Your task to perform on an android device: turn off translation in the chrome app Image 0: 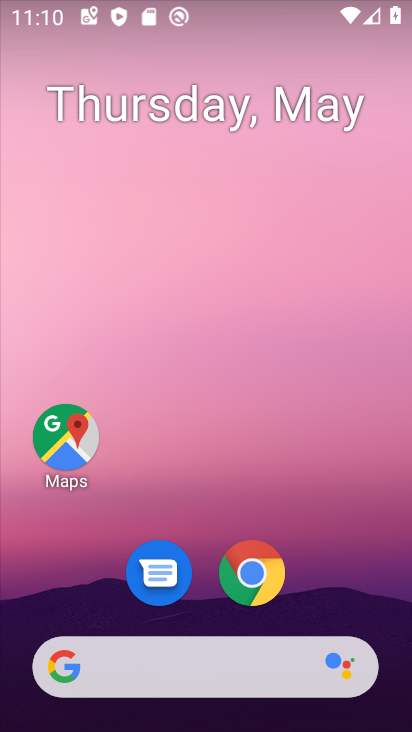
Step 0: click (261, 568)
Your task to perform on an android device: turn off translation in the chrome app Image 1: 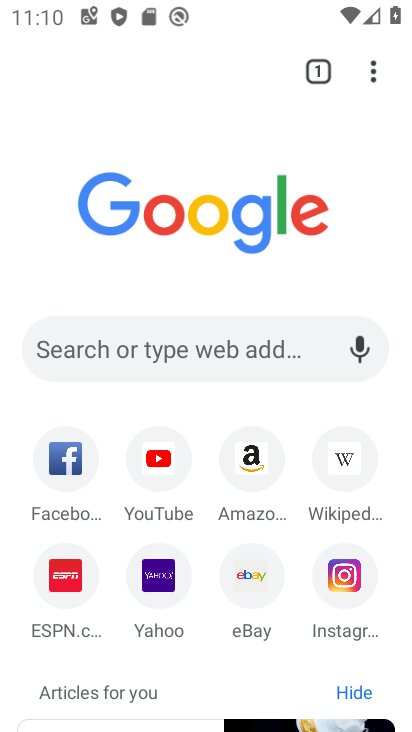
Step 1: click (380, 78)
Your task to perform on an android device: turn off translation in the chrome app Image 2: 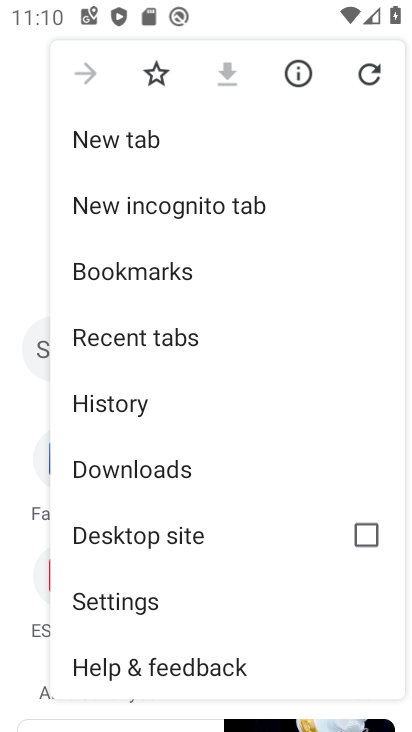
Step 2: click (219, 597)
Your task to perform on an android device: turn off translation in the chrome app Image 3: 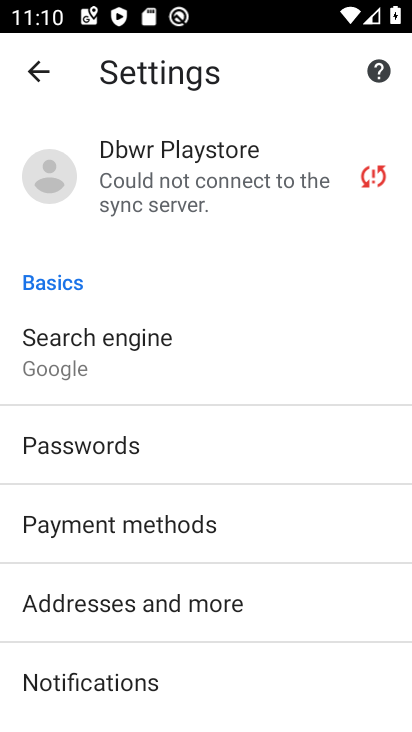
Step 3: drag from (256, 610) to (202, 359)
Your task to perform on an android device: turn off translation in the chrome app Image 4: 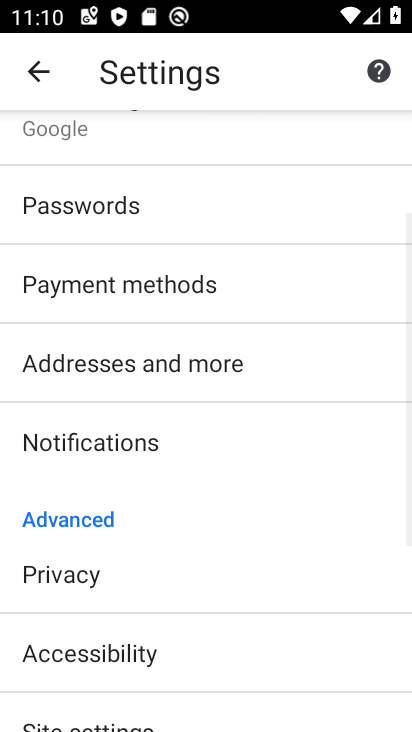
Step 4: drag from (236, 538) to (154, 307)
Your task to perform on an android device: turn off translation in the chrome app Image 5: 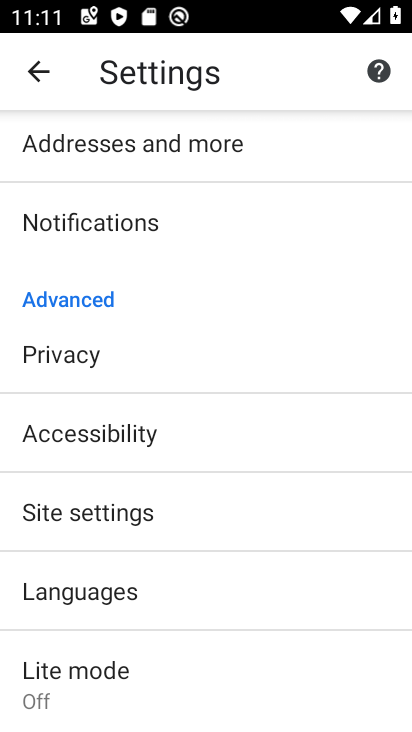
Step 5: click (137, 576)
Your task to perform on an android device: turn off translation in the chrome app Image 6: 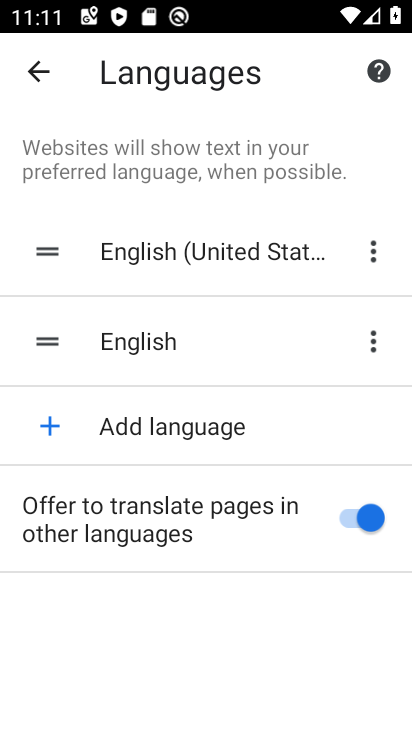
Step 6: click (365, 504)
Your task to perform on an android device: turn off translation in the chrome app Image 7: 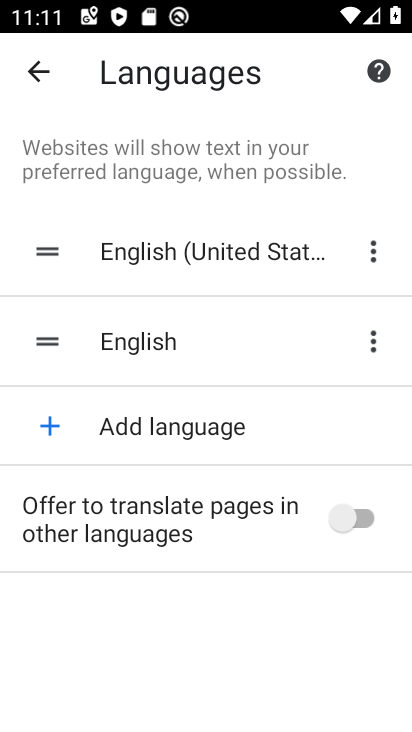
Step 7: task complete